Your task to perform on an android device: open wifi settings Image 0: 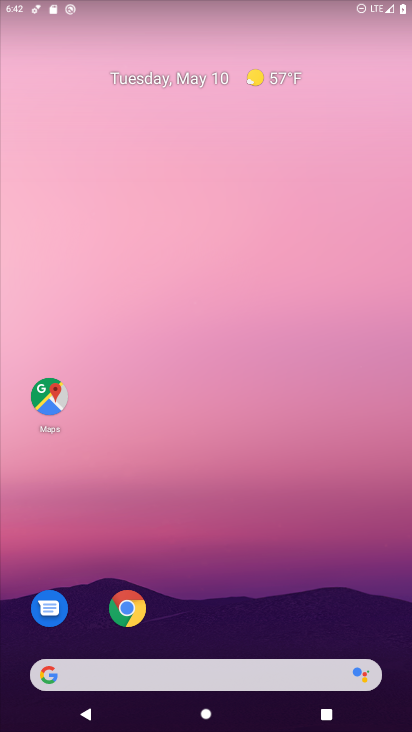
Step 0: drag from (317, 606) to (267, 55)
Your task to perform on an android device: open wifi settings Image 1: 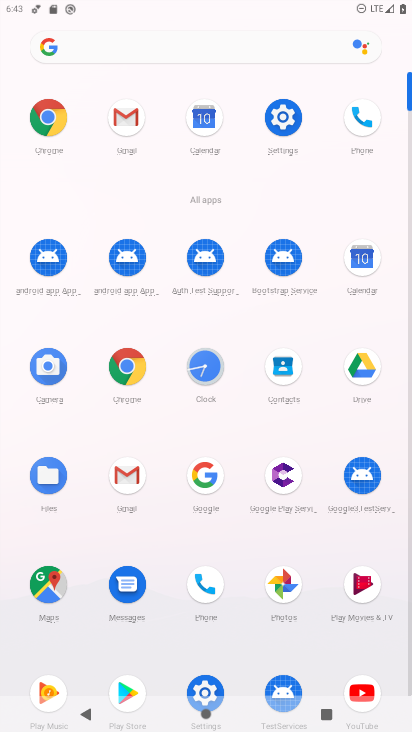
Step 1: click (211, 685)
Your task to perform on an android device: open wifi settings Image 2: 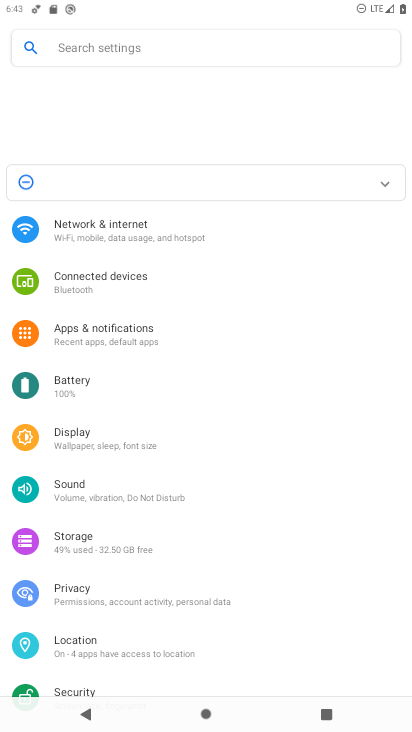
Step 2: click (173, 155)
Your task to perform on an android device: open wifi settings Image 3: 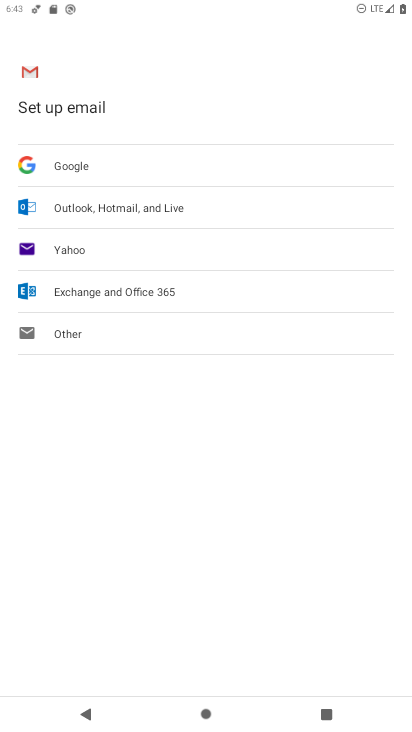
Step 3: press back button
Your task to perform on an android device: open wifi settings Image 4: 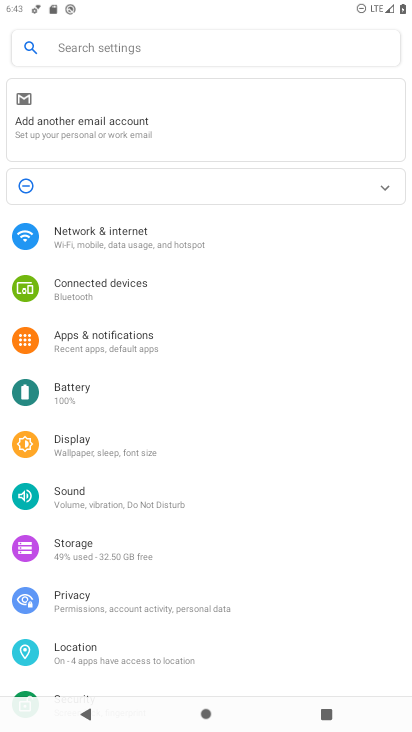
Step 4: click (115, 247)
Your task to perform on an android device: open wifi settings Image 5: 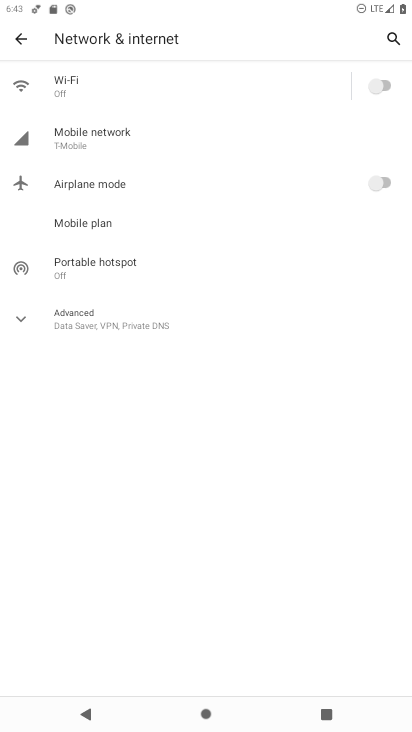
Step 5: click (210, 98)
Your task to perform on an android device: open wifi settings Image 6: 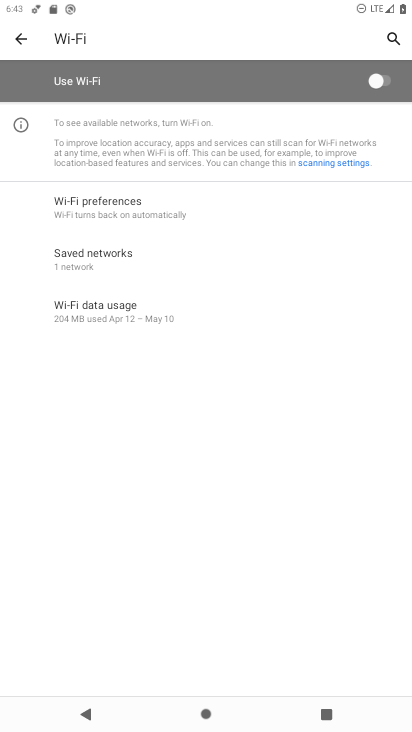
Step 6: task complete